Your task to perform on an android device: turn pop-ups on in chrome Image 0: 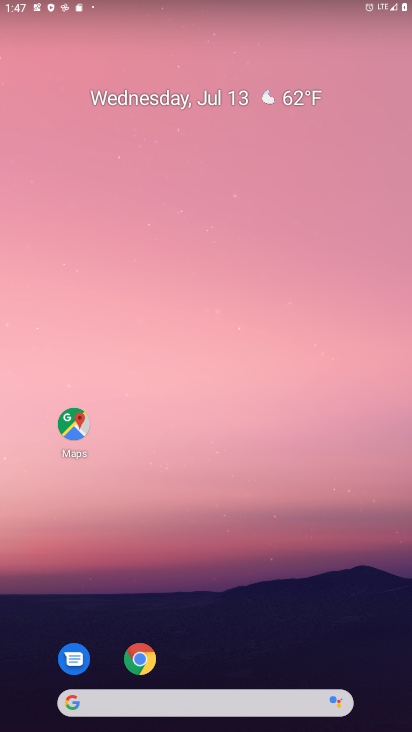
Step 0: click (220, 684)
Your task to perform on an android device: turn pop-ups on in chrome Image 1: 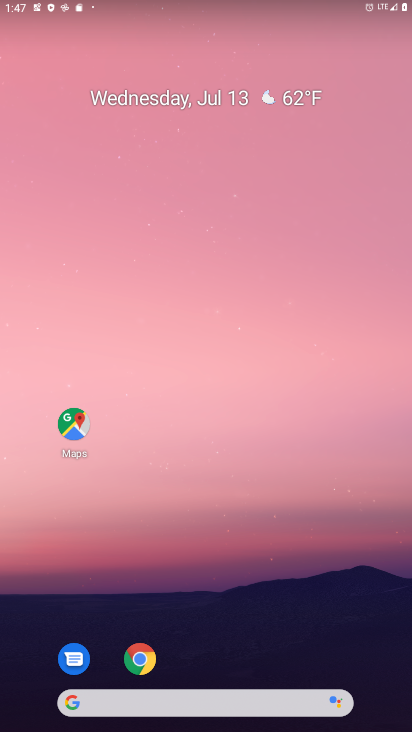
Step 1: drag from (220, 280) to (220, 134)
Your task to perform on an android device: turn pop-ups on in chrome Image 2: 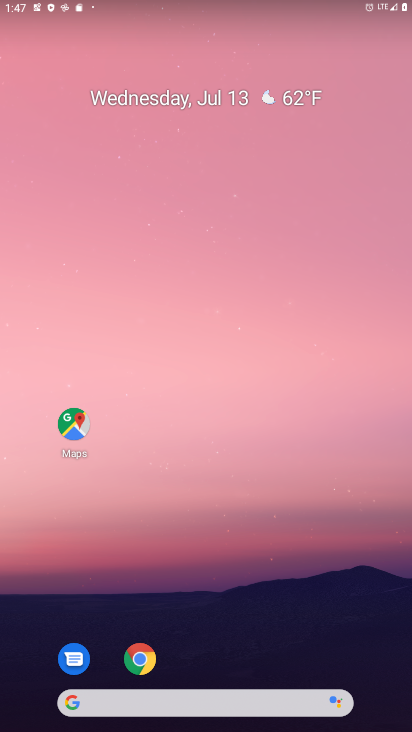
Step 2: drag from (189, 711) to (188, 34)
Your task to perform on an android device: turn pop-ups on in chrome Image 3: 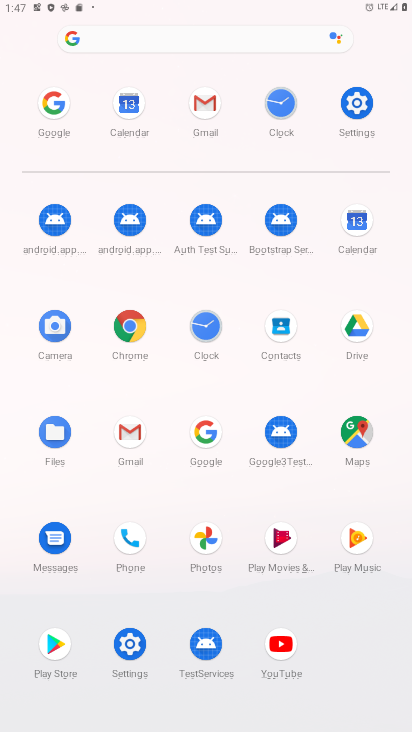
Step 3: click (134, 329)
Your task to perform on an android device: turn pop-ups on in chrome Image 4: 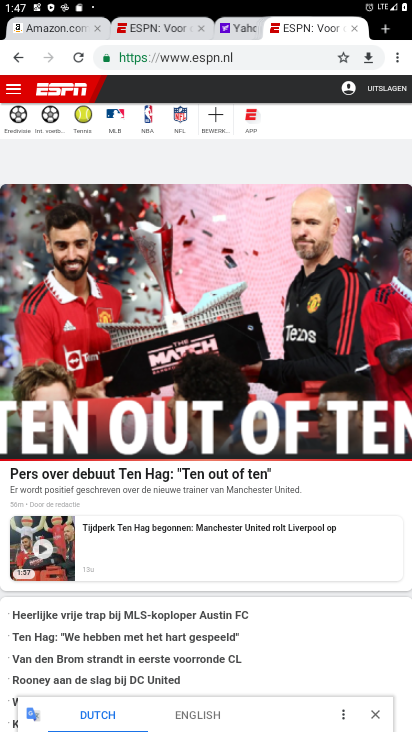
Step 4: click (399, 61)
Your task to perform on an android device: turn pop-ups on in chrome Image 5: 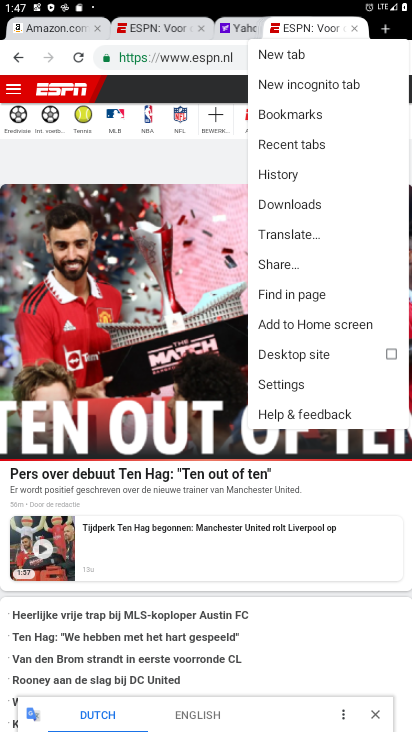
Step 5: click (279, 381)
Your task to perform on an android device: turn pop-ups on in chrome Image 6: 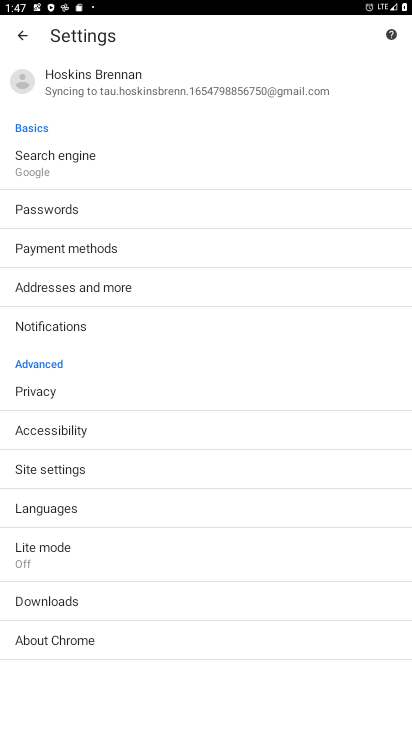
Step 6: click (54, 468)
Your task to perform on an android device: turn pop-ups on in chrome Image 7: 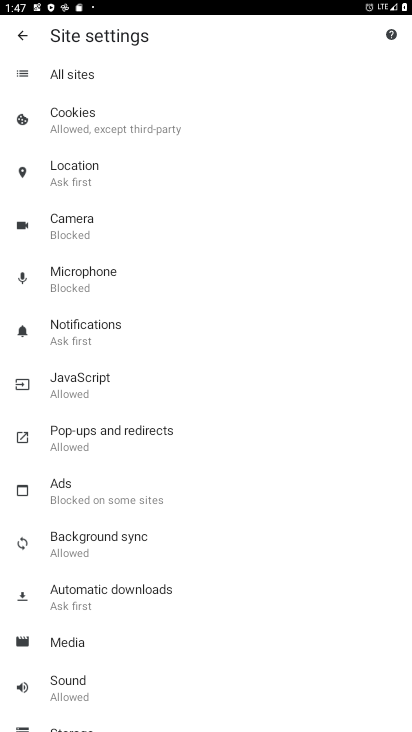
Step 7: click (71, 435)
Your task to perform on an android device: turn pop-ups on in chrome Image 8: 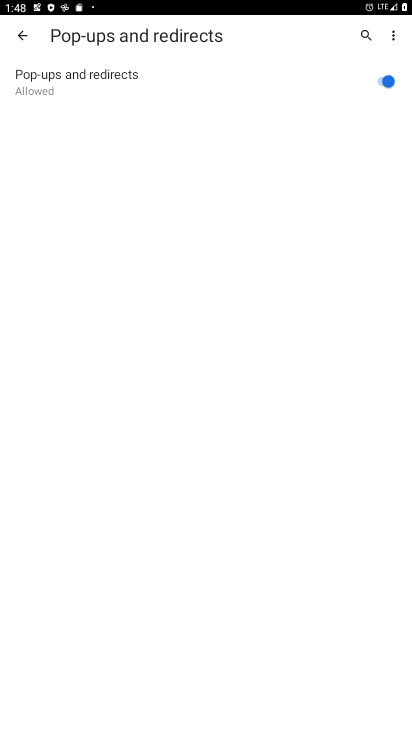
Step 8: task complete